Your task to perform on an android device: Open Reddit.com Image 0: 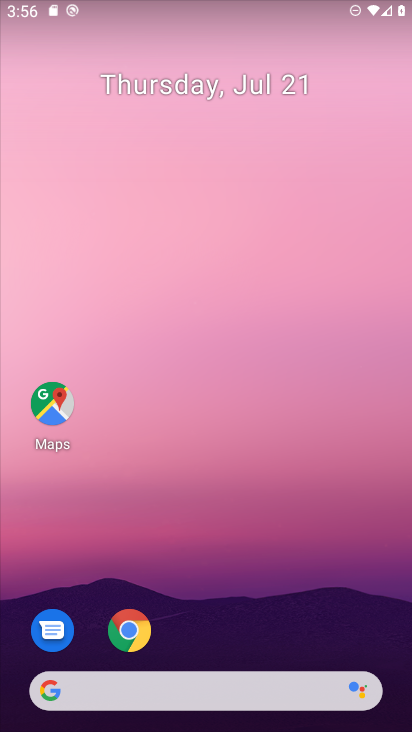
Step 0: click (144, 618)
Your task to perform on an android device: Open Reddit.com Image 1: 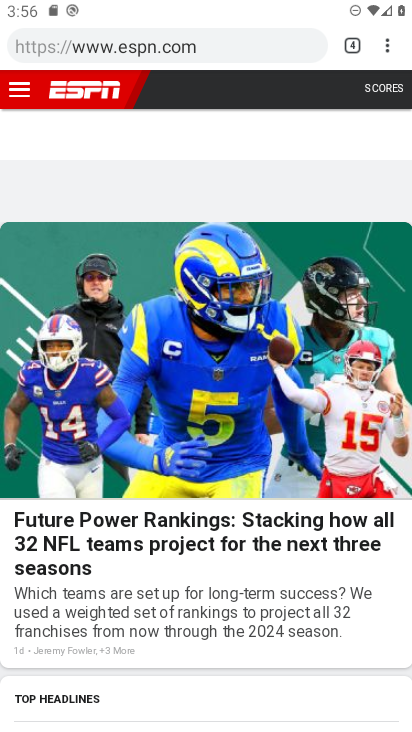
Step 1: click (349, 42)
Your task to perform on an android device: Open Reddit.com Image 2: 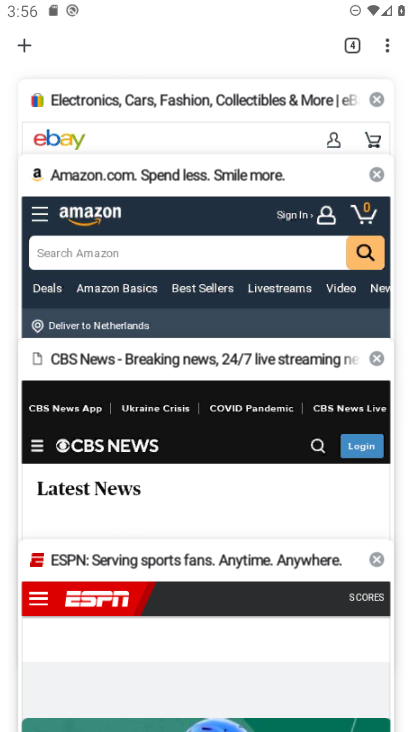
Step 2: click (33, 35)
Your task to perform on an android device: Open Reddit.com Image 3: 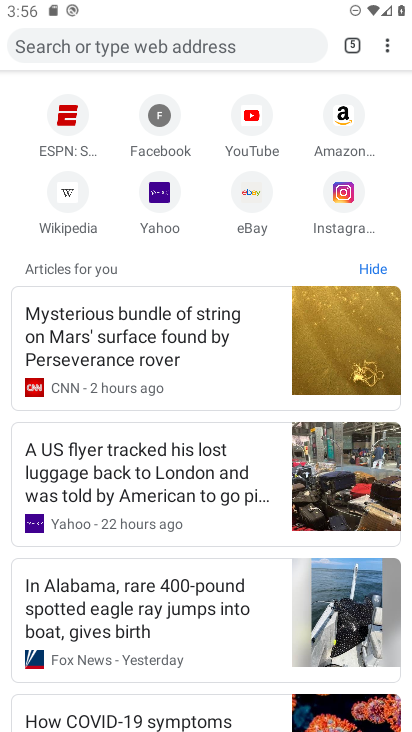
Step 3: click (129, 54)
Your task to perform on an android device: Open Reddit.com Image 4: 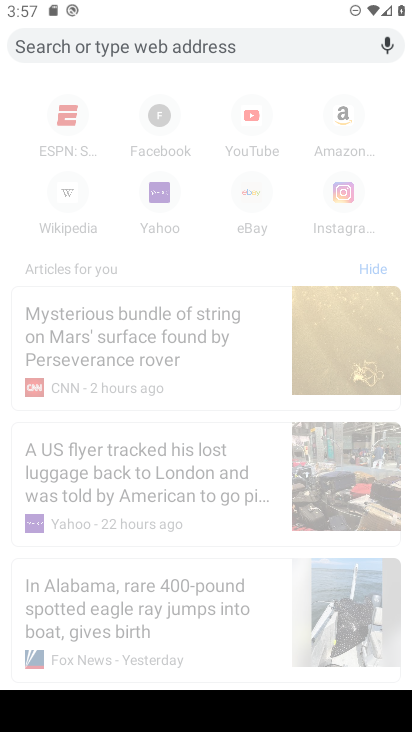
Step 4: type "reddit.com"
Your task to perform on an android device: Open Reddit.com Image 5: 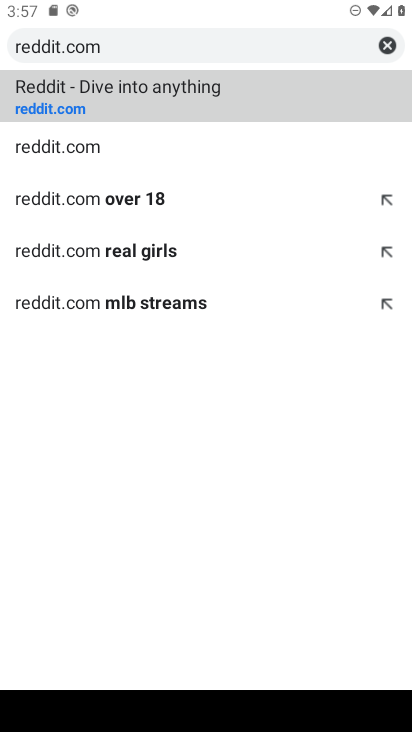
Step 5: click (144, 98)
Your task to perform on an android device: Open Reddit.com Image 6: 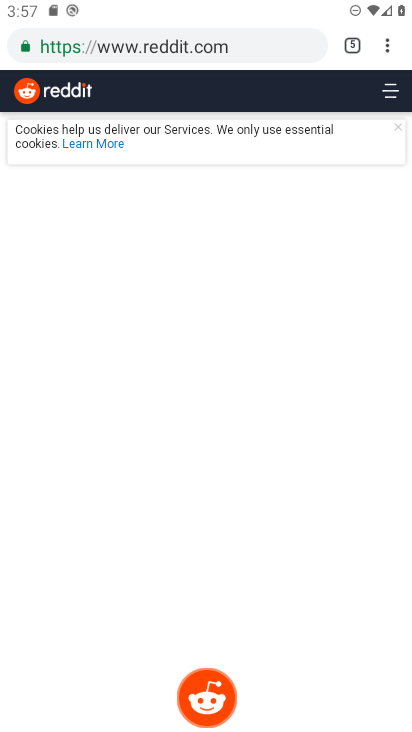
Step 6: task complete